Your task to perform on an android device: move a message to another label in the gmail app Image 0: 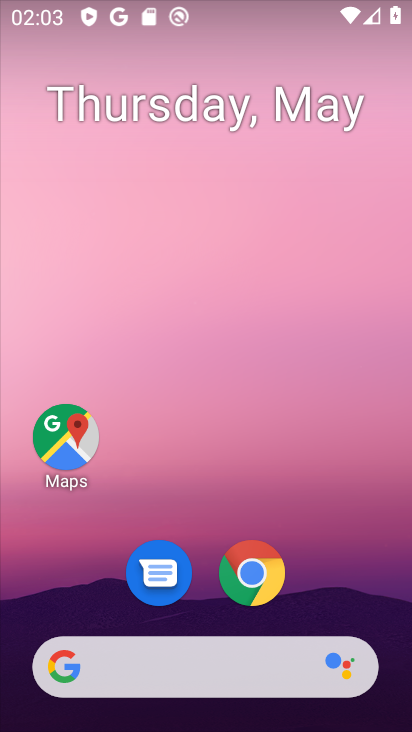
Step 0: drag from (343, 573) to (368, 307)
Your task to perform on an android device: move a message to another label in the gmail app Image 1: 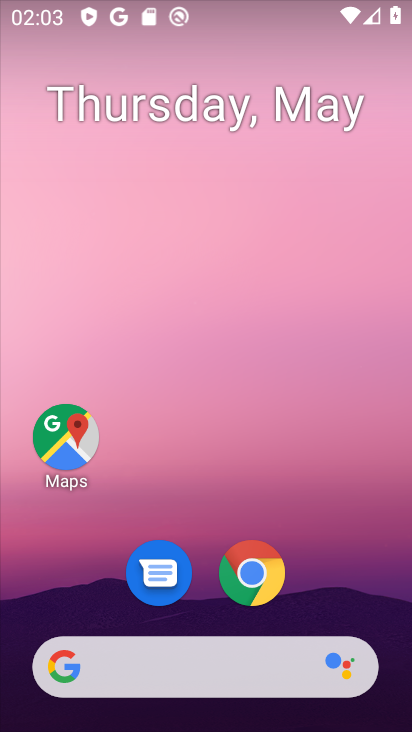
Step 1: drag from (312, 557) to (338, 243)
Your task to perform on an android device: move a message to another label in the gmail app Image 2: 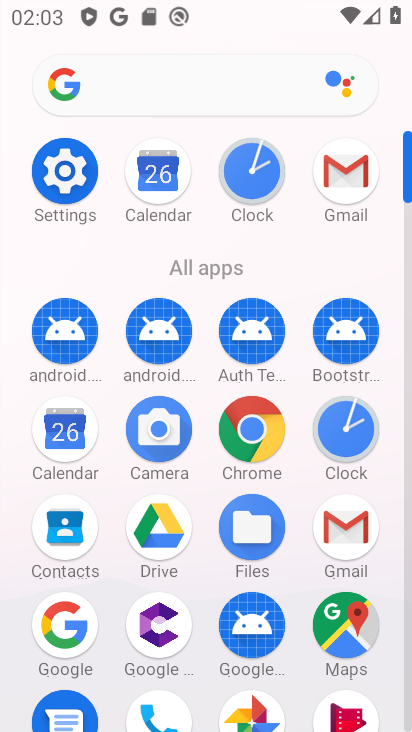
Step 2: click (353, 173)
Your task to perform on an android device: move a message to another label in the gmail app Image 3: 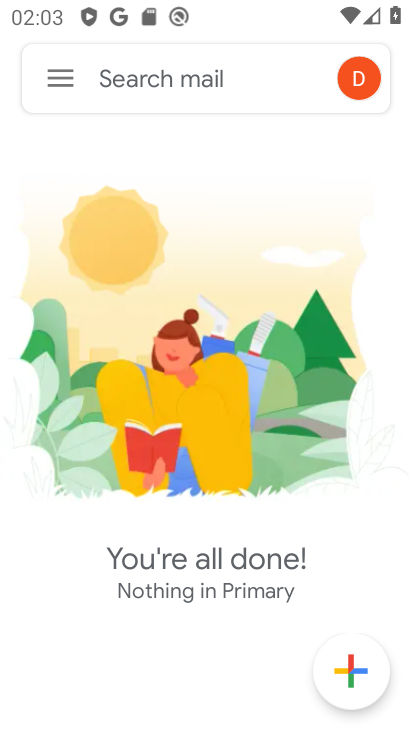
Step 3: click (46, 68)
Your task to perform on an android device: move a message to another label in the gmail app Image 4: 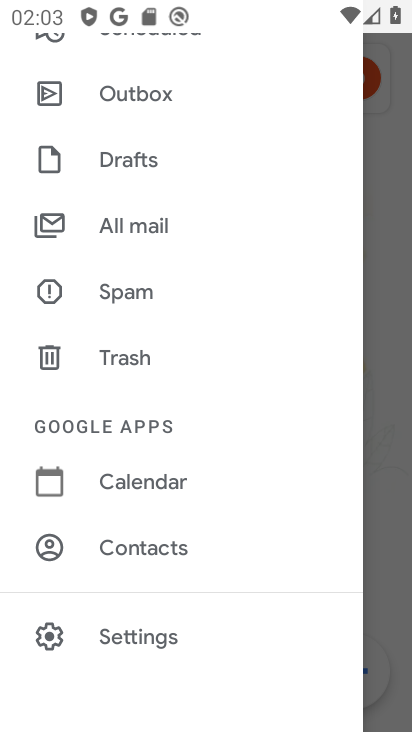
Step 4: click (158, 218)
Your task to perform on an android device: move a message to another label in the gmail app Image 5: 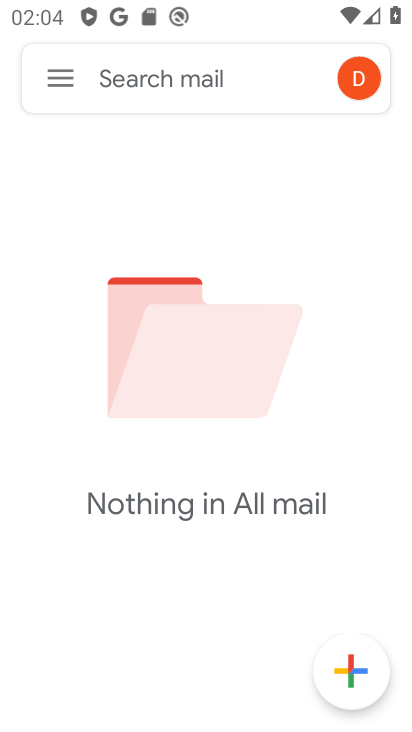
Step 5: task complete